Your task to perform on an android device: Find coffee shops on Maps Image 0: 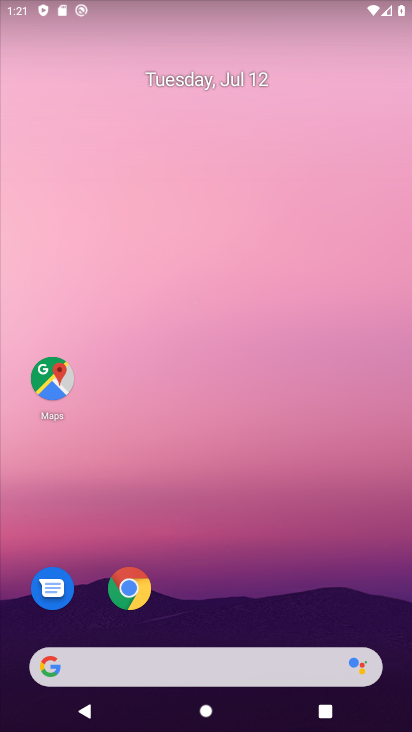
Step 0: click (231, 59)
Your task to perform on an android device: Find coffee shops on Maps Image 1: 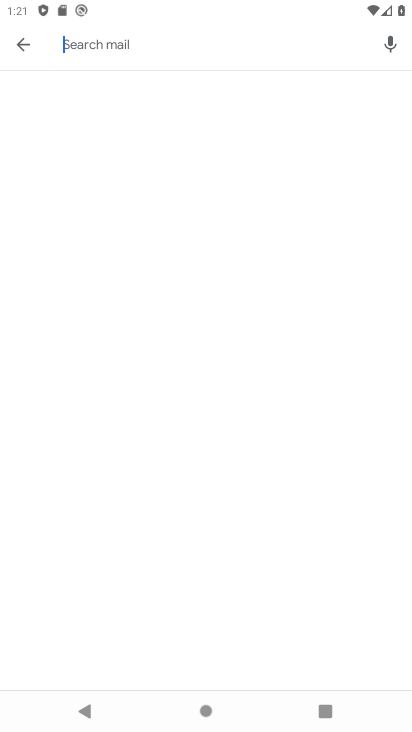
Step 1: press home button
Your task to perform on an android device: Find coffee shops on Maps Image 2: 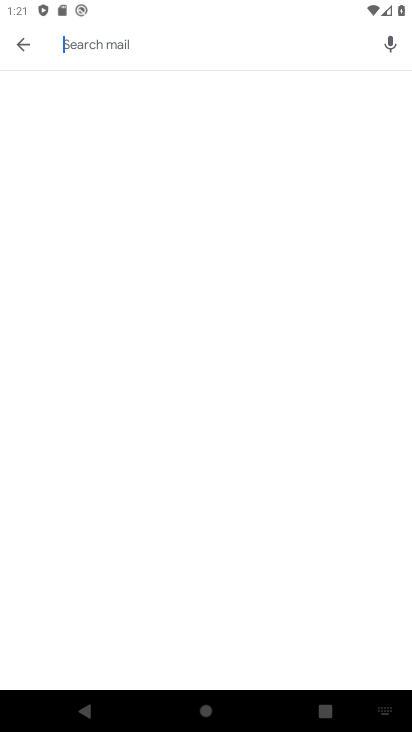
Step 2: drag from (266, 596) to (278, 198)
Your task to perform on an android device: Find coffee shops on Maps Image 3: 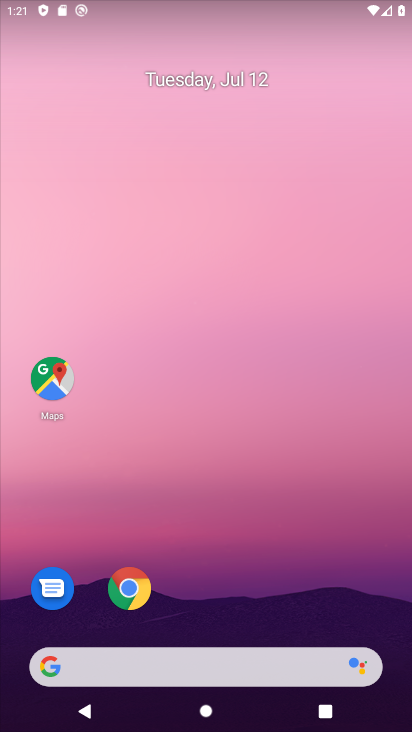
Step 3: drag from (205, 600) to (266, 84)
Your task to perform on an android device: Find coffee shops on Maps Image 4: 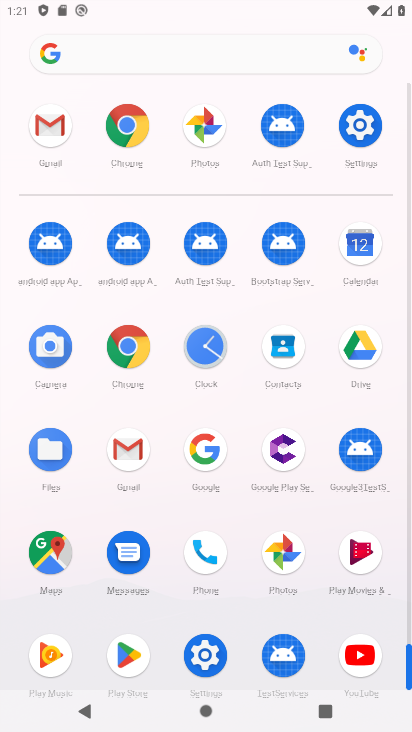
Step 4: click (40, 548)
Your task to perform on an android device: Find coffee shops on Maps Image 5: 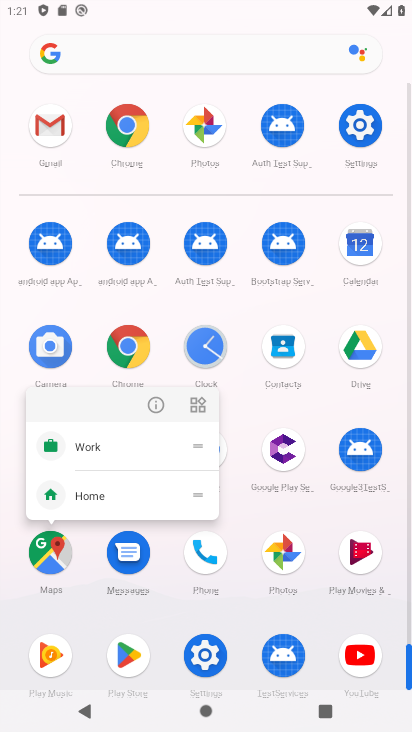
Step 5: click (148, 406)
Your task to perform on an android device: Find coffee shops on Maps Image 6: 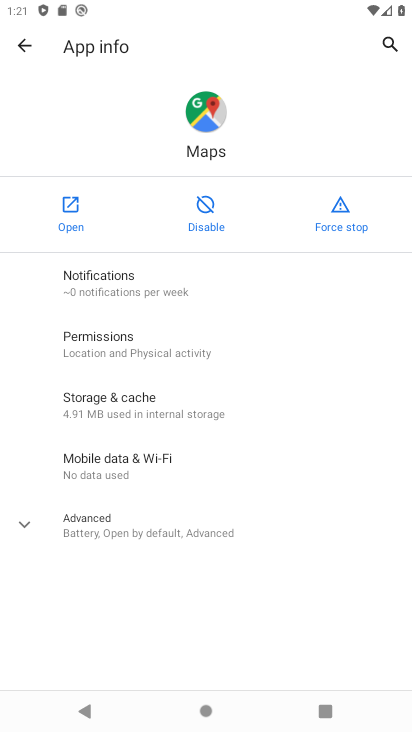
Step 6: click (77, 215)
Your task to perform on an android device: Find coffee shops on Maps Image 7: 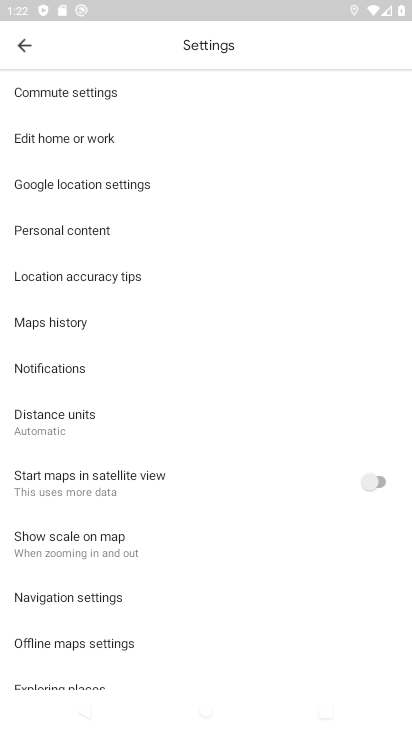
Step 7: drag from (189, 555) to (228, 301)
Your task to perform on an android device: Find coffee shops on Maps Image 8: 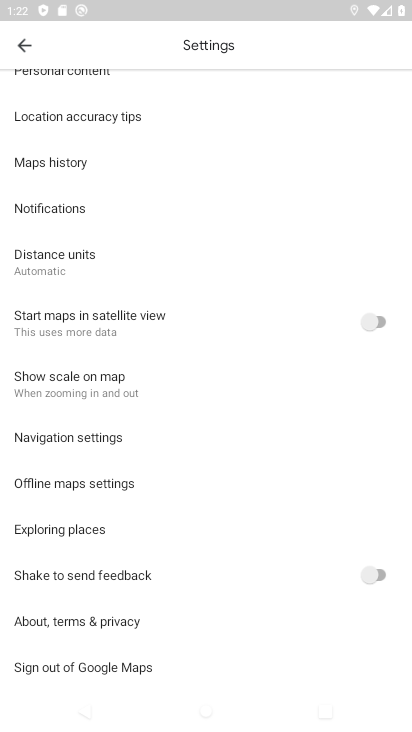
Step 8: click (19, 33)
Your task to perform on an android device: Find coffee shops on Maps Image 9: 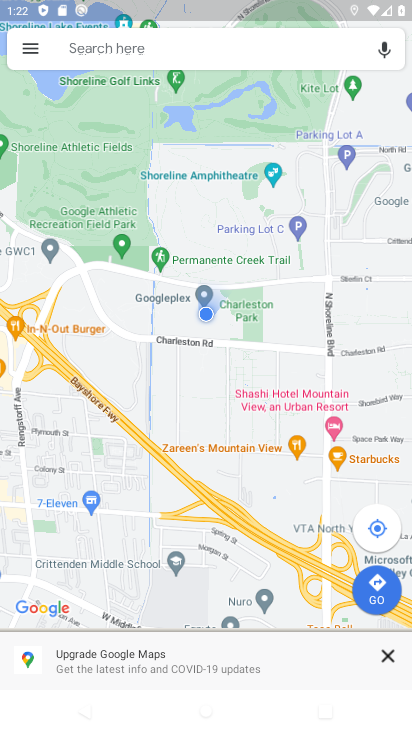
Step 9: drag from (200, 257) to (282, 705)
Your task to perform on an android device: Find coffee shops on Maps Image 10: 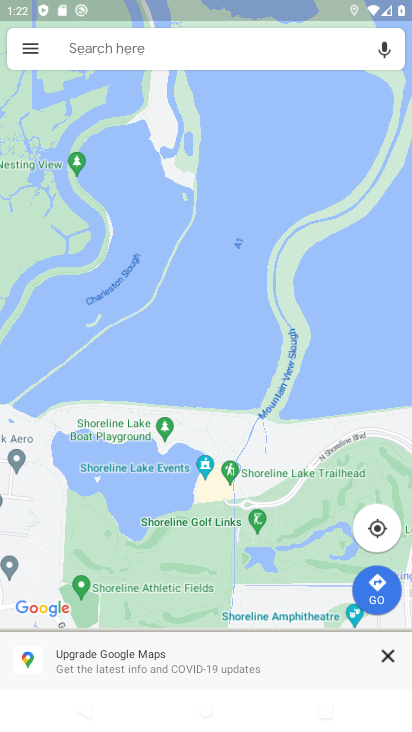
Step 10: click (121, 51)
Your task to perform on an android device: Find coffee shops on Maps Image 11: 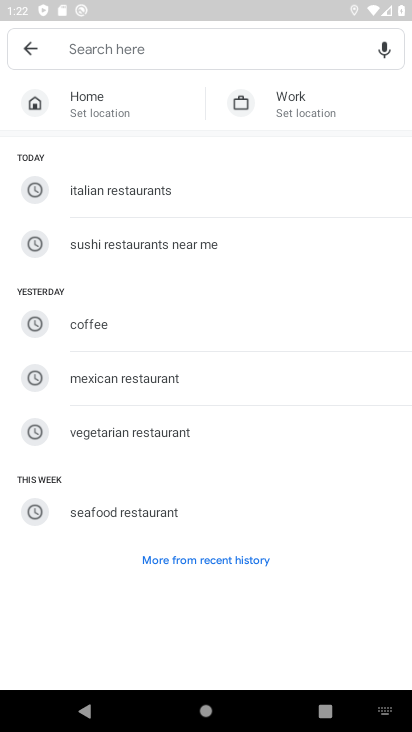
Step 11: click (117, 324)
Your task to perform on an android device: Find coffee shops on Maps Image 12: 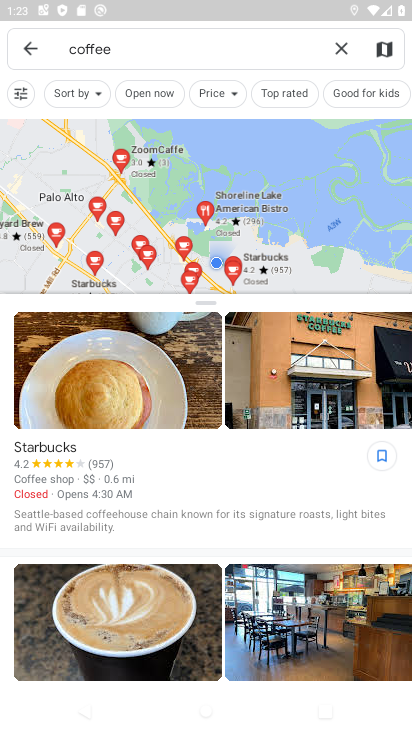
Step 12: task complete